Your task to perform on an android device: toggle data saver in the chrome app Image 0: 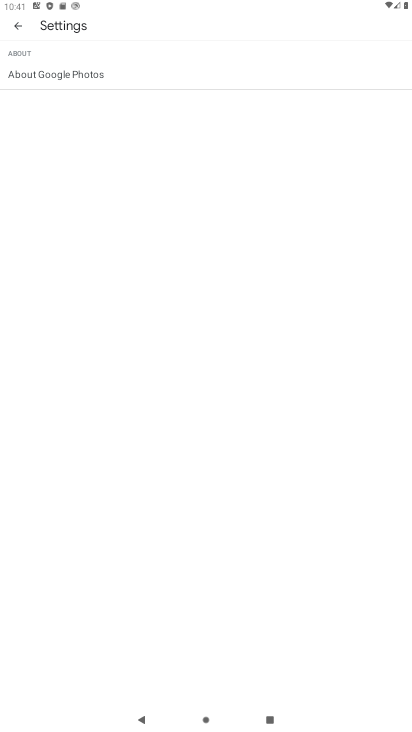
Step 0: press home button
Your task to perform on an android device: toggle data saver in the chrome app Image 1: 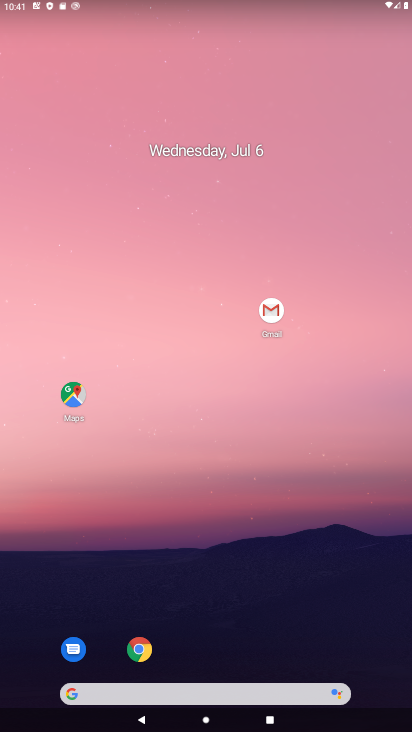
Step 1: click (145, 644)
Your task to perform on an android device: toggle data saver in the chrome app Image 2: 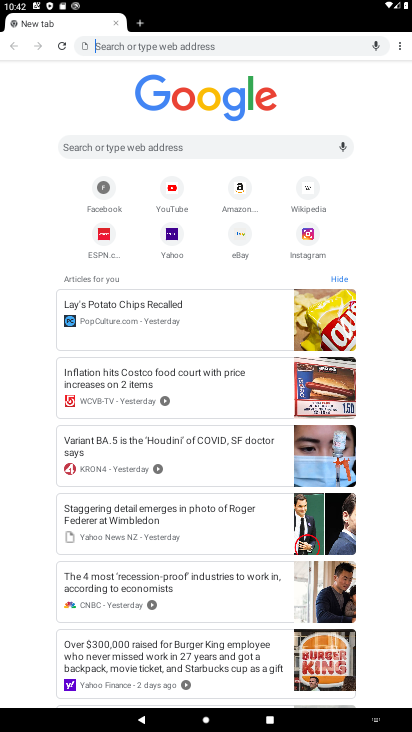
Step 2: click (397, 45)
Your task to perform on an android device: toggle data saver in the chrome app Image 3: 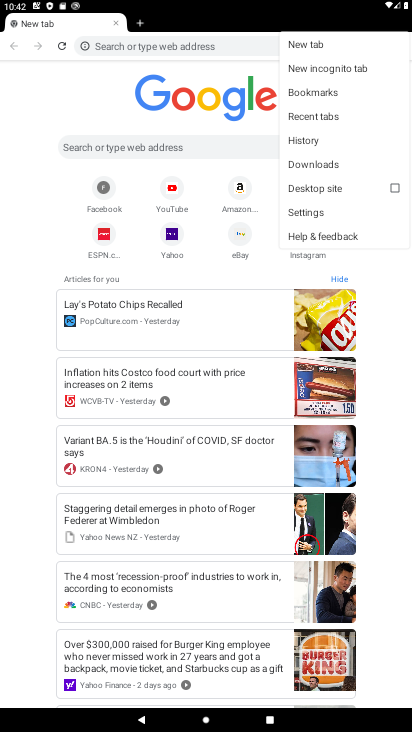
Step 3: click (292, 210)
Your task to perform on an android device: toggle data saver in the chrome app Image 4: 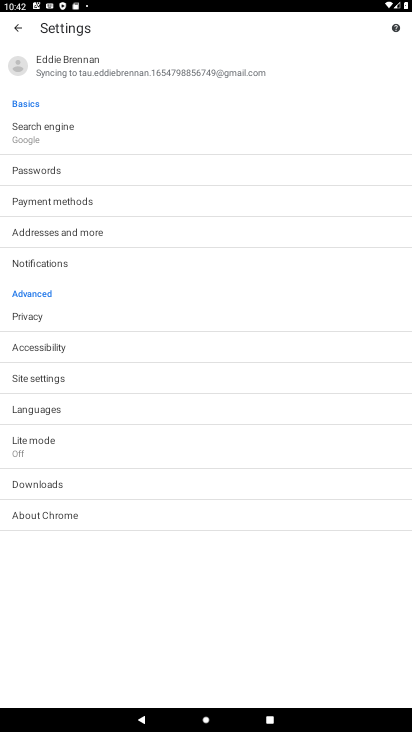
Step 4: click (94, 448)
Your task to perform on an android device: toggle data saver in the chrome app Image 5: 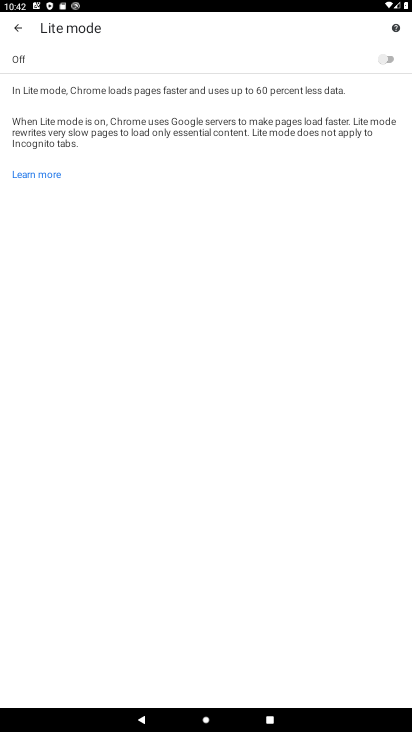
Step 5: click (389, 65)
Your task to perform on an android device: toggle data saver in the chrome app Image 6: 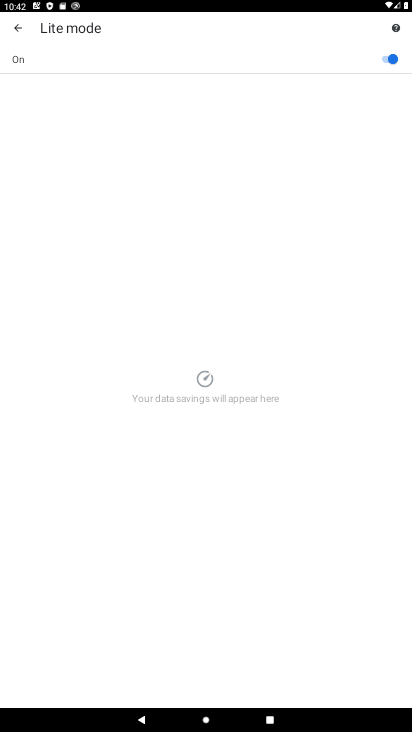
Step 6: task complete